Your task to perform on an android device: open app "Reddit" (install if not already installed) Image 0: 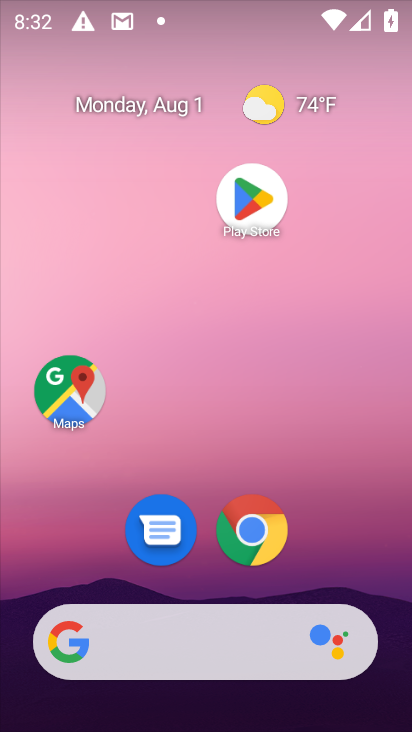
Step 0: click (267, 213)
Your task to perform on an android device: open app "Reddit" (install if not already installed) Image 1: 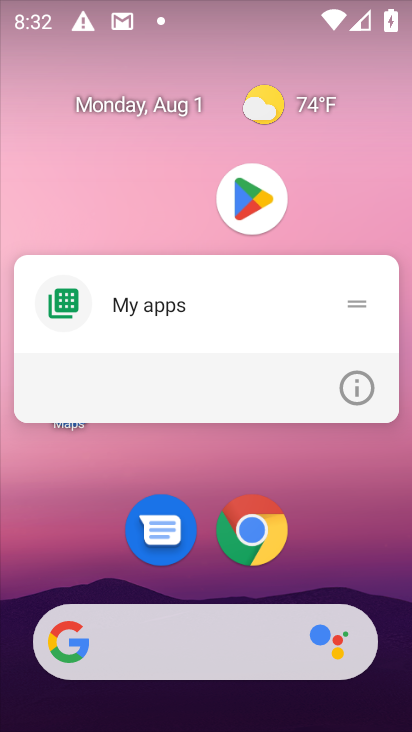
Step 1: click (266, 191)
Your task to perform on an android device: open app "Reddit" (install if not already installed) Image 2: 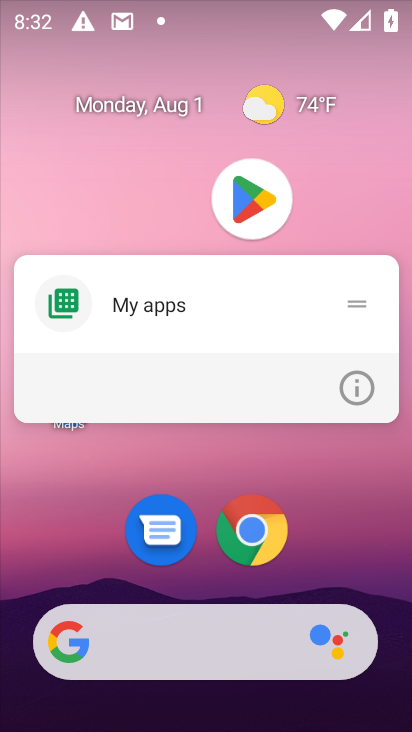
Step 2: click (263, 188)
Your task to perform on an android device: open app "Reddit" (install if not already installed) Image 3: 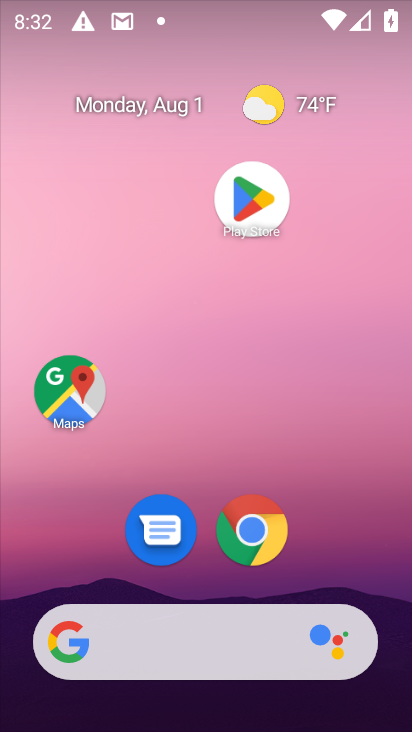
Step 3: click (263, 188)
Your task to perform on an android device: open app "Reddit" (install if not already installed) Image 4: 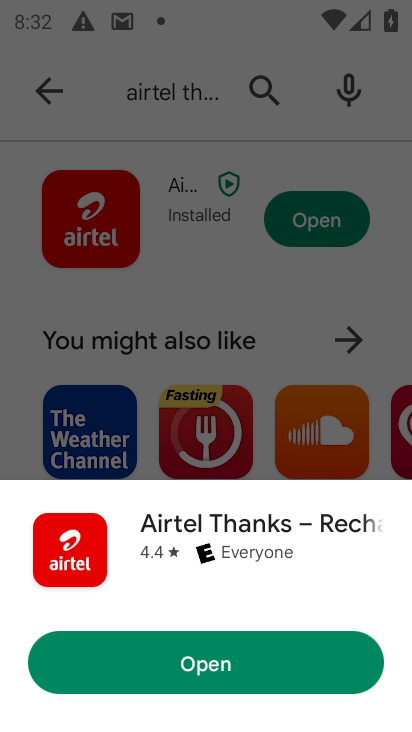
Step 4: click (261, 84)
Your task to perform on an android device: open app "Reddit" (install if not already installed) Image 5: 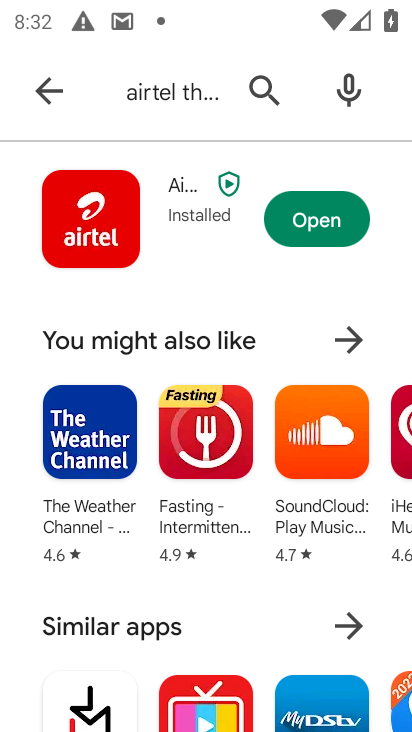
Step 5: click (274, 93)
Your task to perform on an android device: open app "Reddit" (install if not already installed) Image 6: 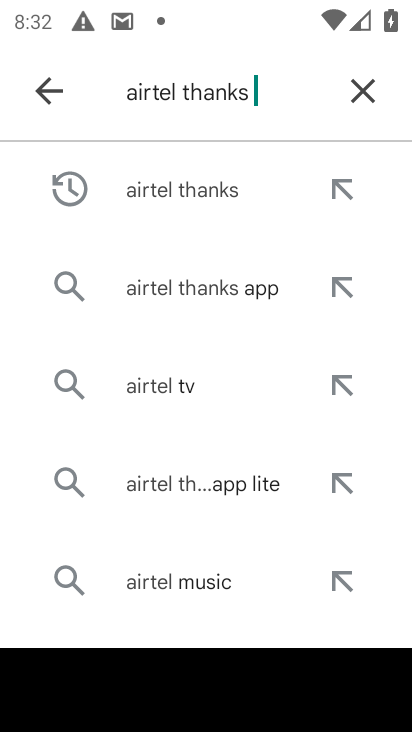
Step 6: click (359, 97)
Your task to perform on an android device: open app "Reddit" (install if not already installed) Image 7: 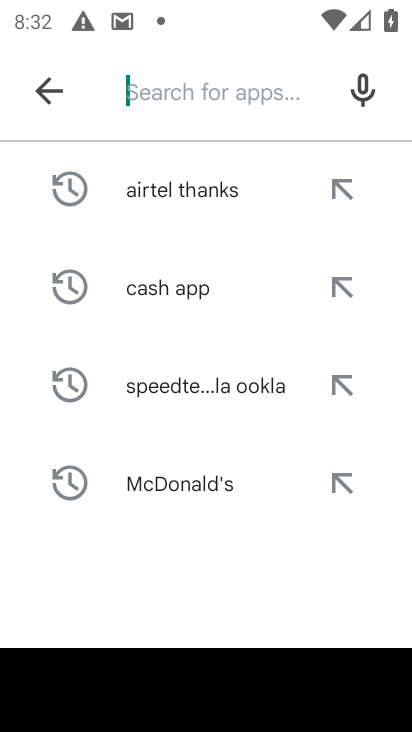
Step 7: type "reddit"
Your task to perform on an android device: open app "Reddit" (install if not already installed) Image 8: 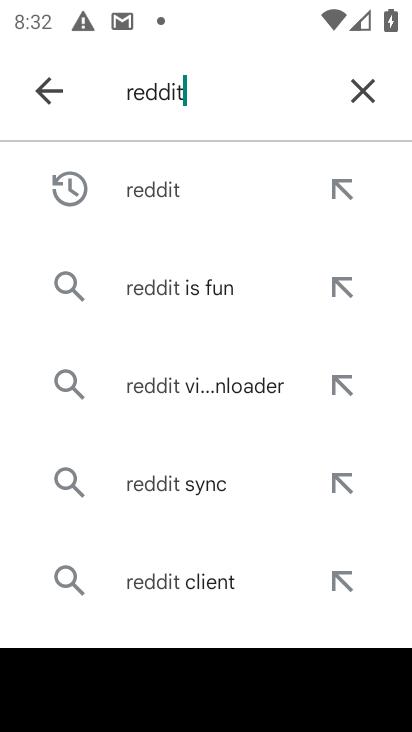
Step 8: click (209, 201)
Your task to perform on an android device: open app "Reddit" (install if not already installed) Image 9: 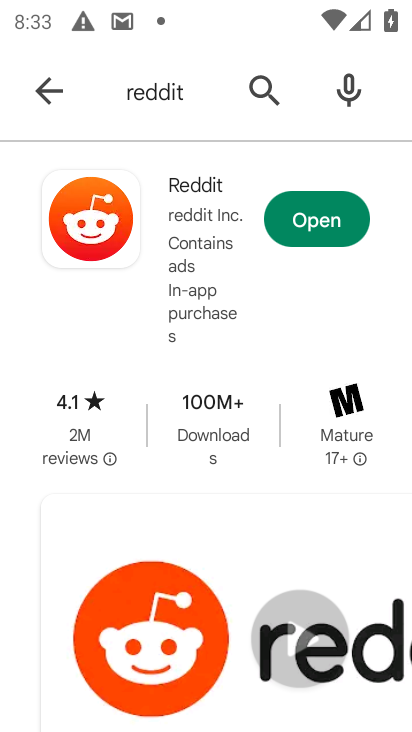
Step 9: click (318, 220)
Your task to perform on an android device: open app "Reddit" (install if not already installed) Image 10: 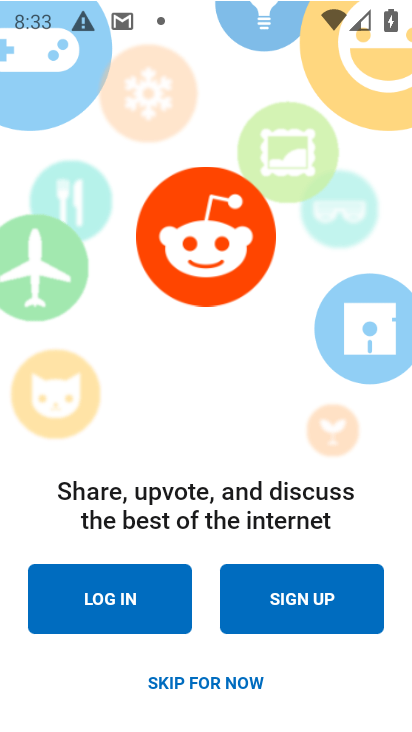
Step 10: task complete